Your task to perform on an android device: toggle notifications settings in the gmail app Image 0: 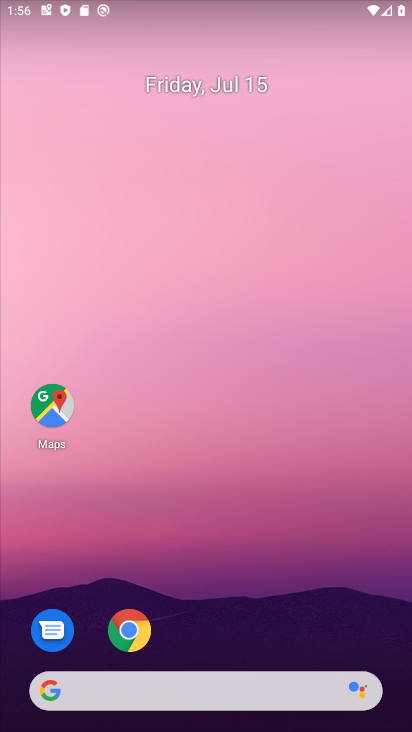
Step 0: drag from (246, 611) to (163, 97)
Your task to perform on an android device: toggle notifications settings in the gmail app Image 1: 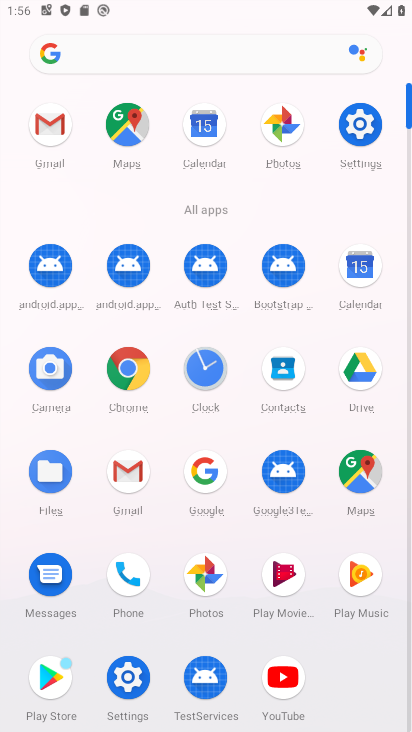
Step 1: click (49, 116)
Your task to perform on an android device: toggle notifications settings in the gmail app Image 2: 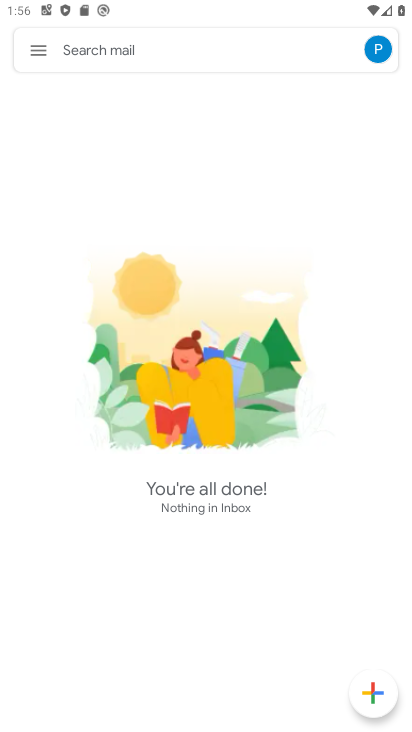
Step 2: click (39, 52)
Your task to perform on an android device: toggle notifications settings in the gmail app Image 3: 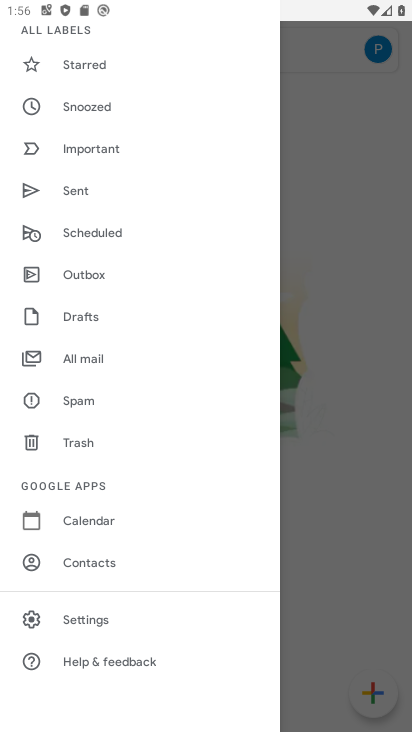
Step 3: click (91, 611)
Your task to perform on an android device: toggle notifications settings in the gmail app Image 4: 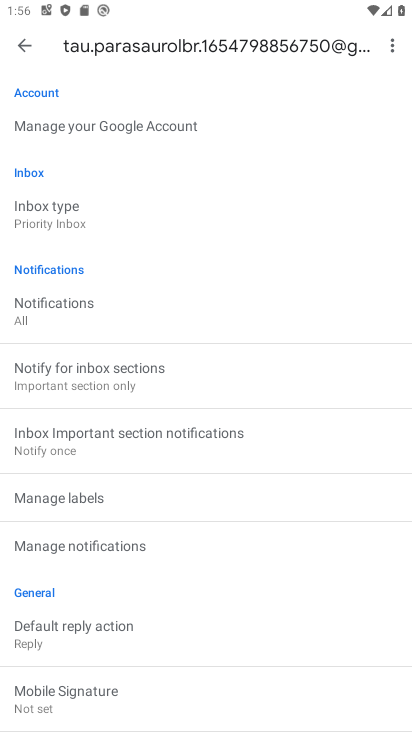
Step 4: click (58, 538)
Your task to perform on an android device: toggle notifications settings in the gmail app Image 5: 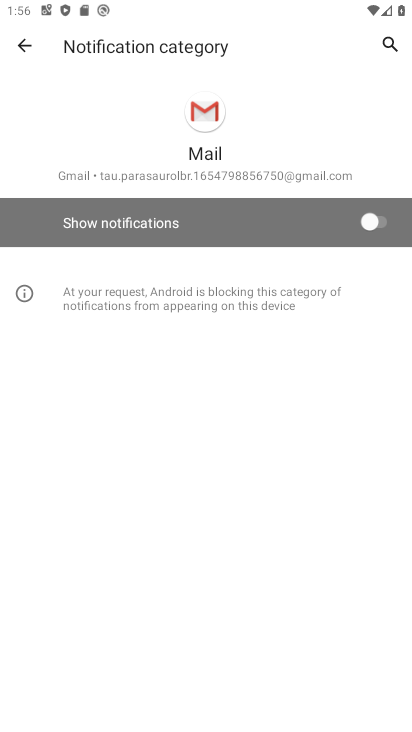
Step 5: click (363, 219)
Your task to perform on an android device: toggle notifications settings in the gmail app Image 6: 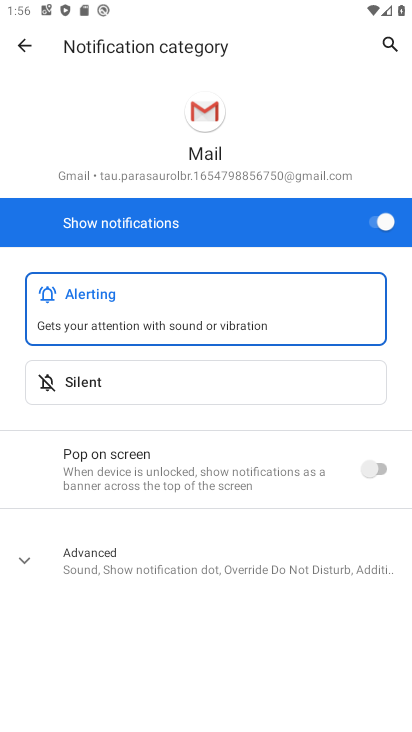
Step 6: task complete